Your task to perform on an android device: Open calendar and show me the third week of next month Image 0: 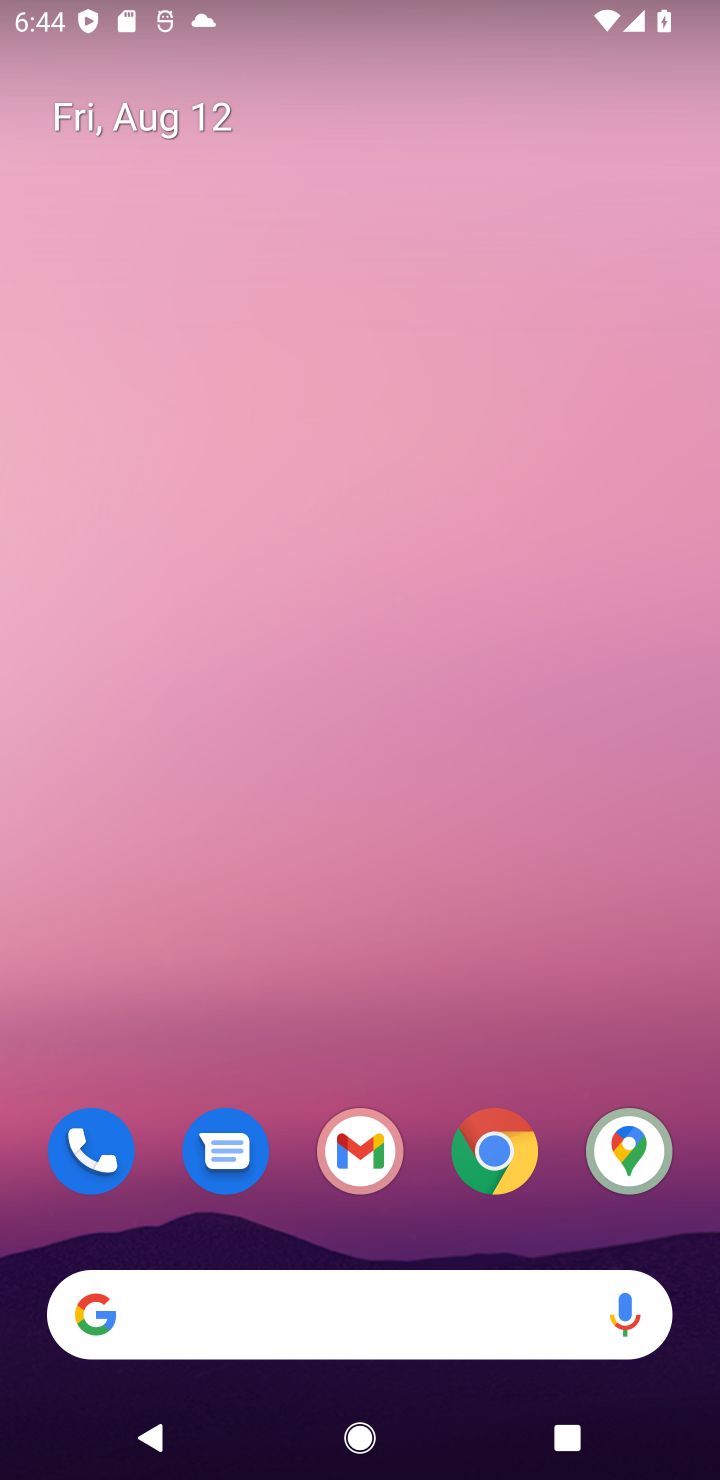
Step 0: drag from (483, 784) to (470, 0)
Your task to perform on an android device: Open calendar and show me the third week of next month Image 1: 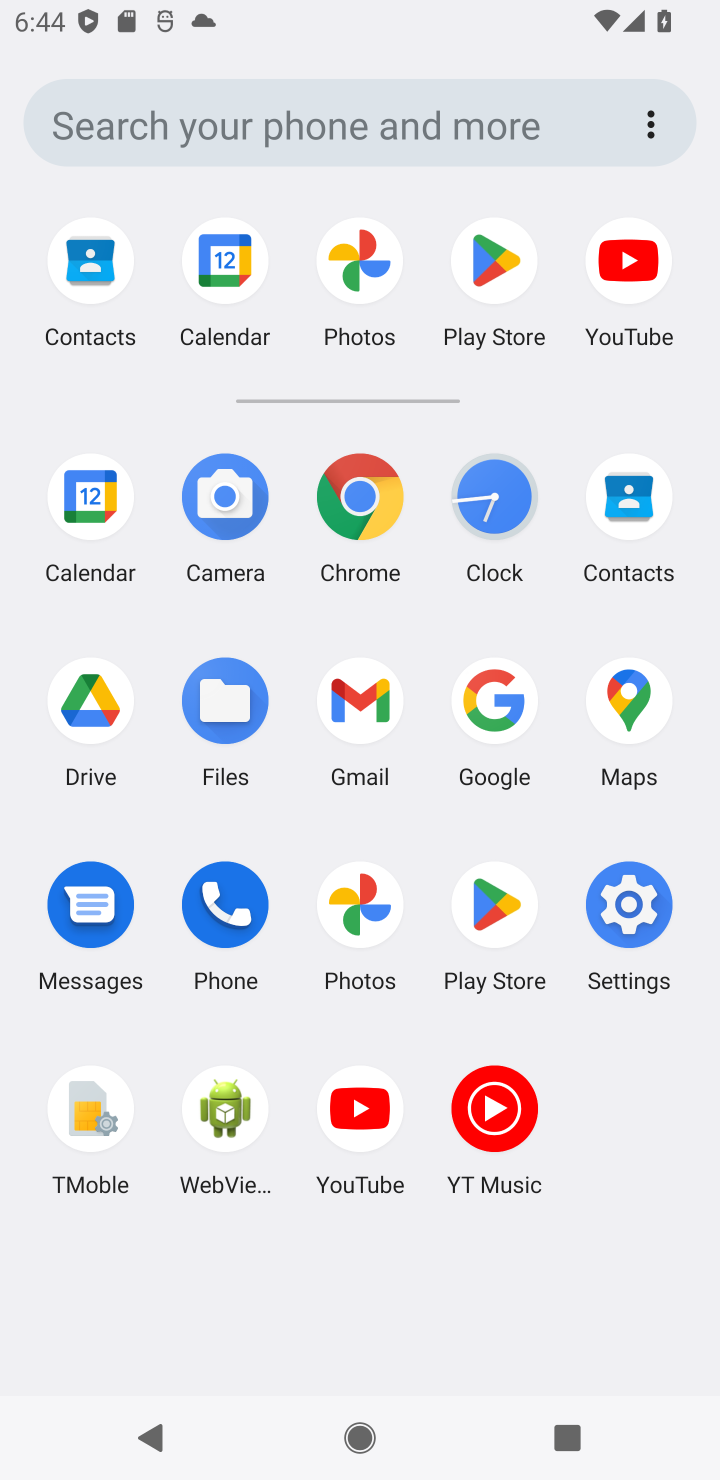
Step 1: click (101, 498)
Your task to perform on an android device: Open calendar and show me the third week of next month Image 2: 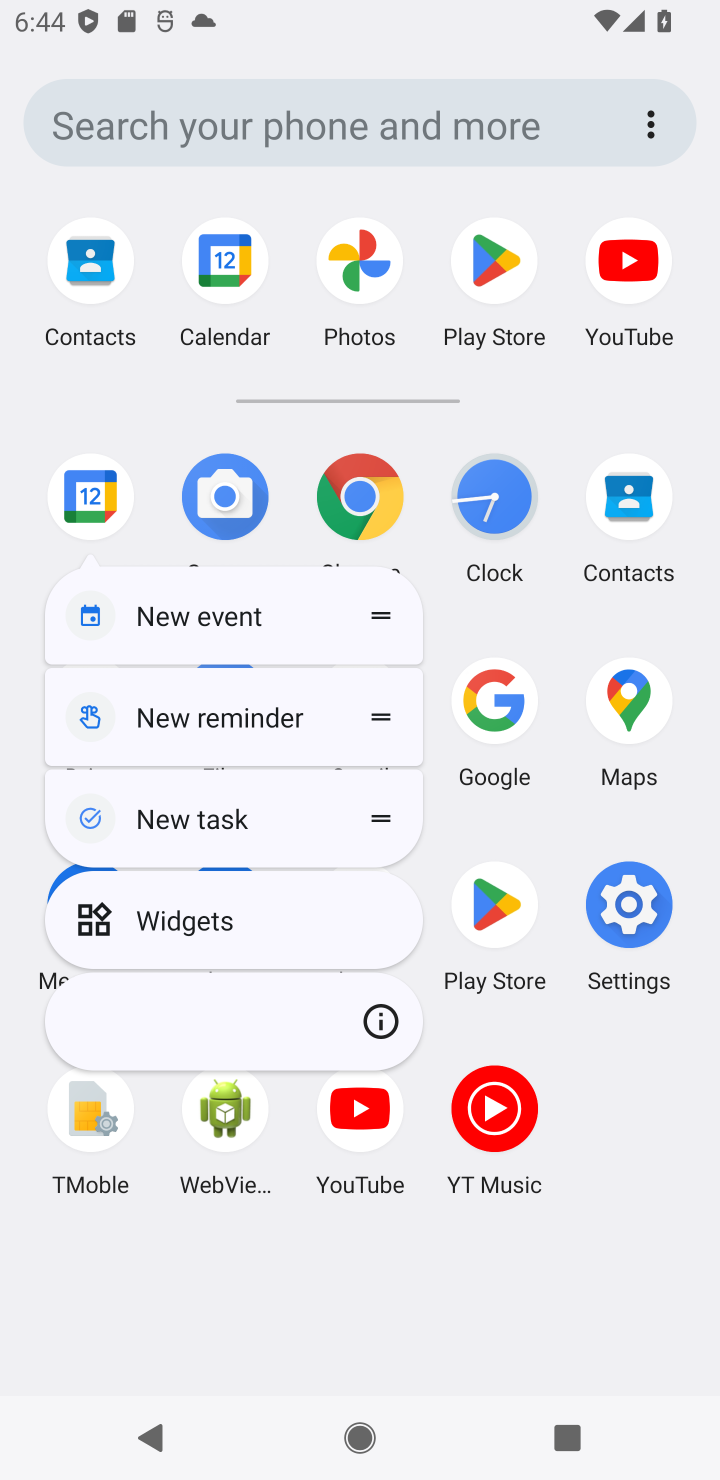
Step 2: click (86, 498)
Your task to perform on an android device: Open calendar and show me the third week of next month Image 3: 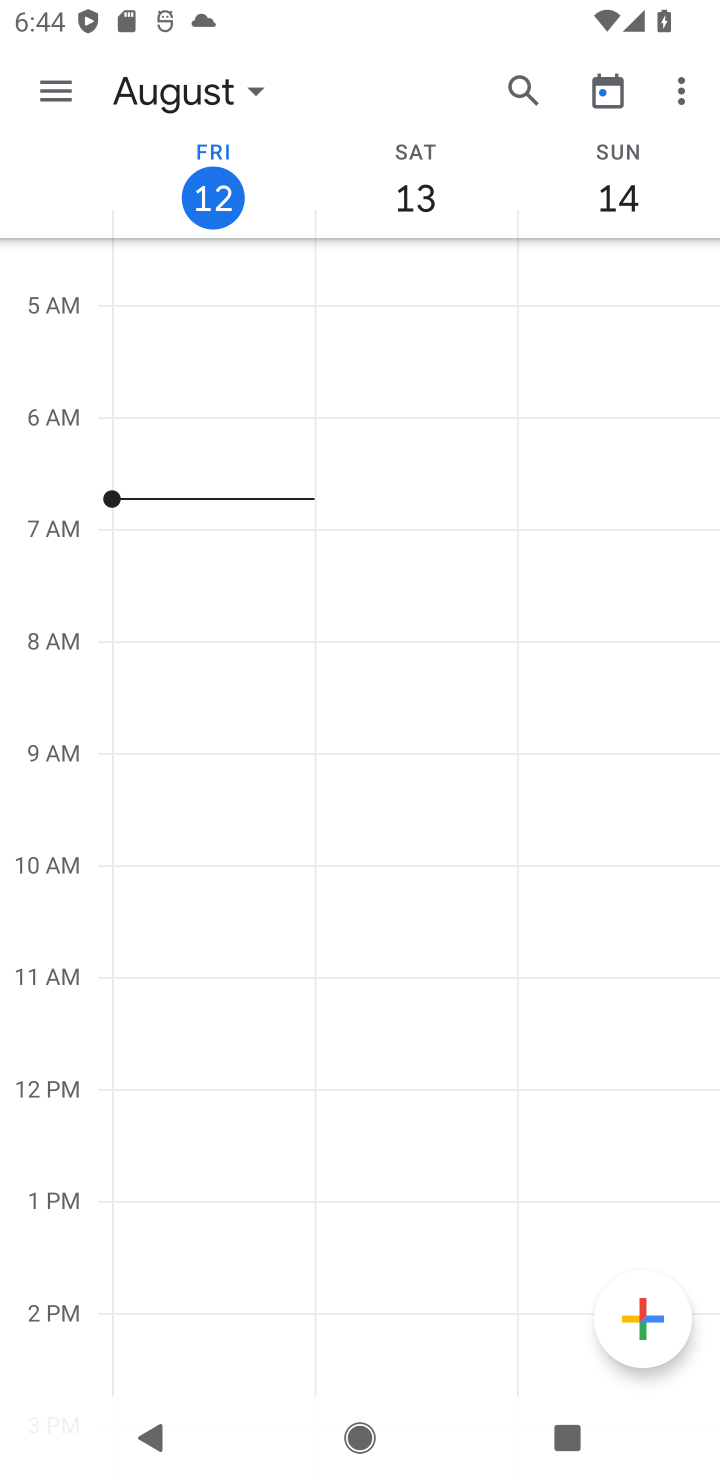
Step 3: click (134, 82)
Your task to perform on an android device: Open calendar and show me the third week of next month Image 4: 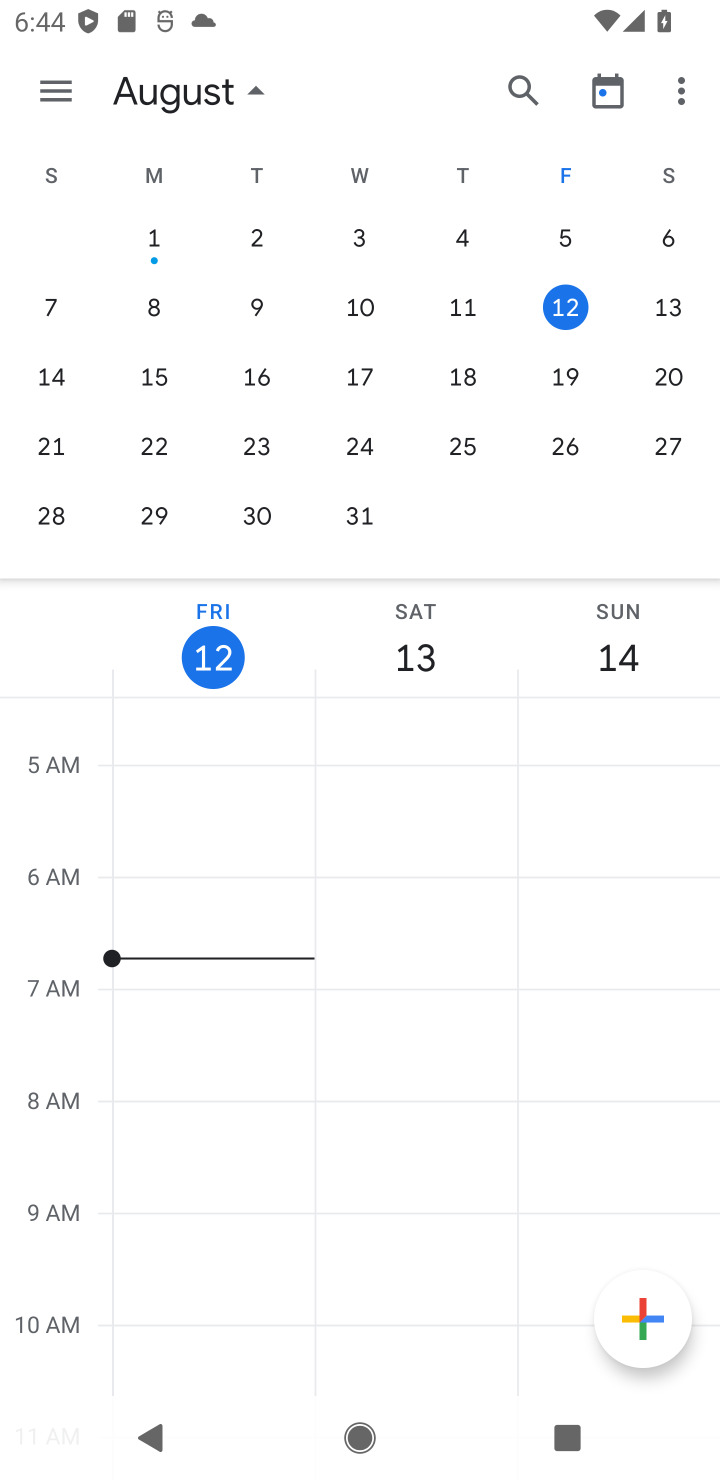
Step 4: drag from (683, 455) to (100, 382)
Your task to perform on an android device: Open calendar and show me the third week of next month Image 5: 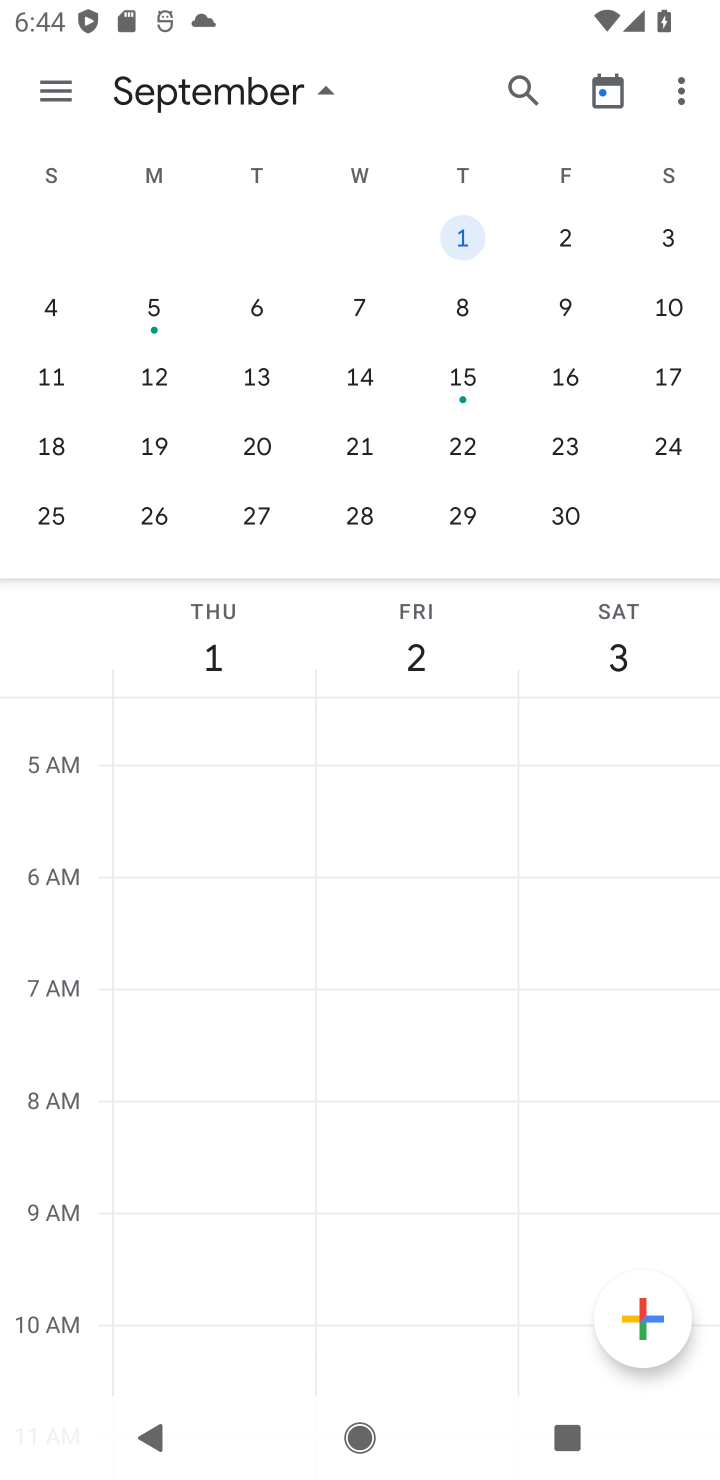
Step 5: click (168, 440)
Your task to perform on an android device: Open calendar and show me the third week of next month Image 6: 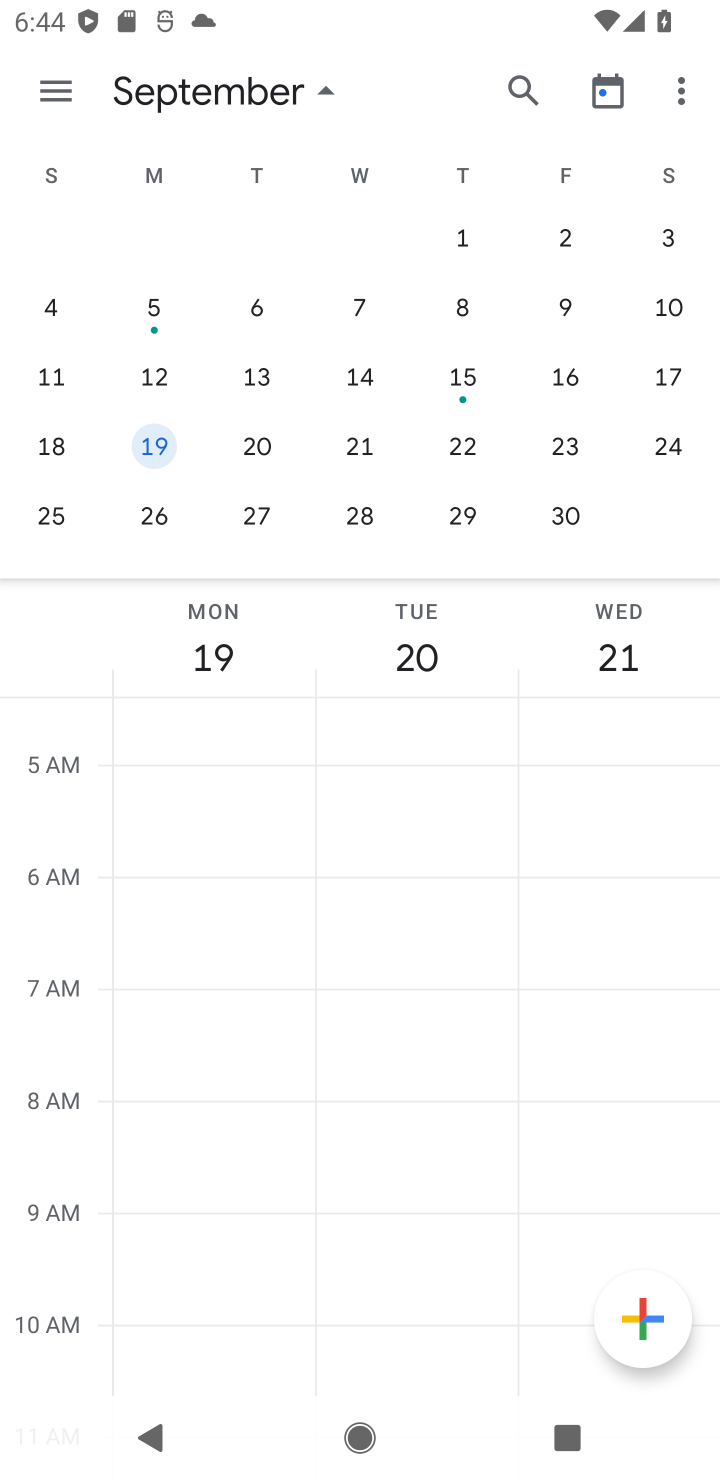
Step 6: click (46, 86)
Your task to perform on an android device: Open calendar and show me the third week of next month Image 7: 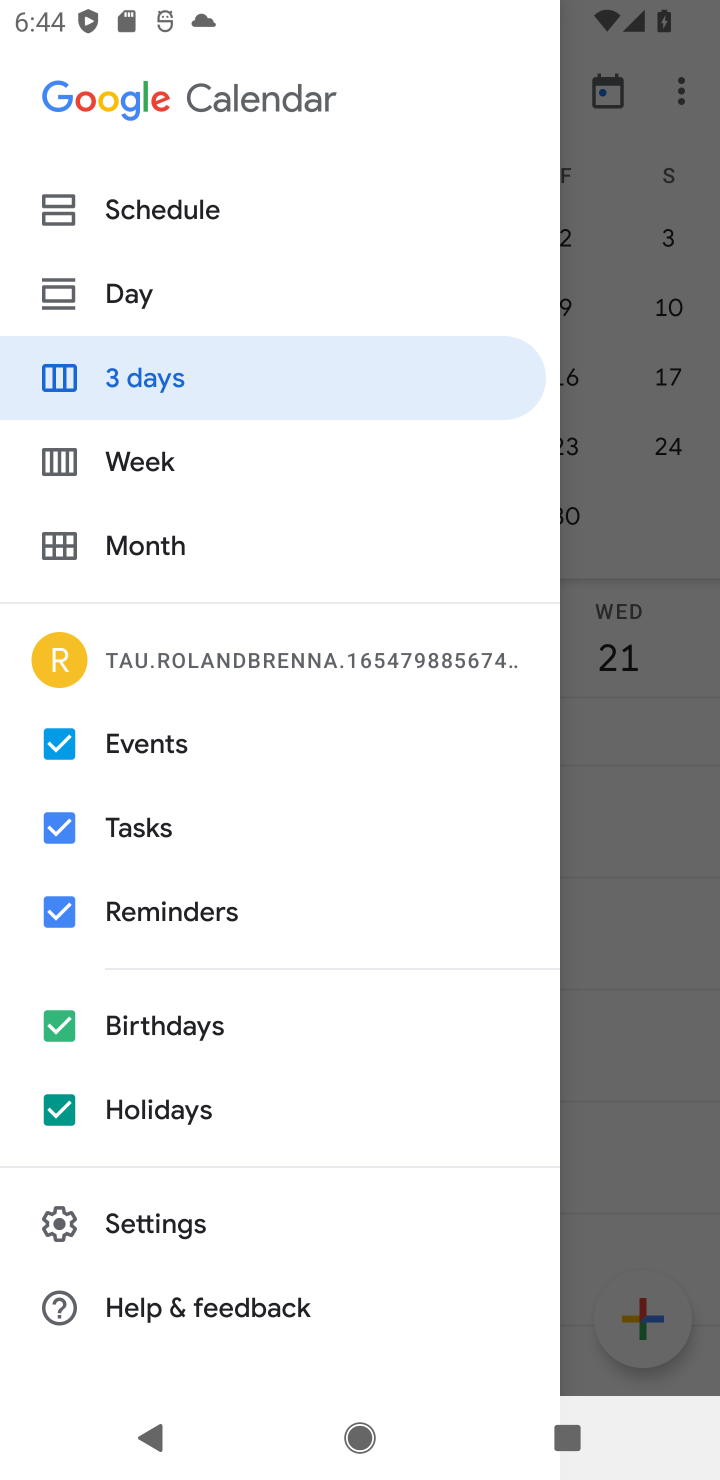
Step 7: click (176, 482)
Your task to perform on an android device: Open calendar and show me the third week of next month Image 8: 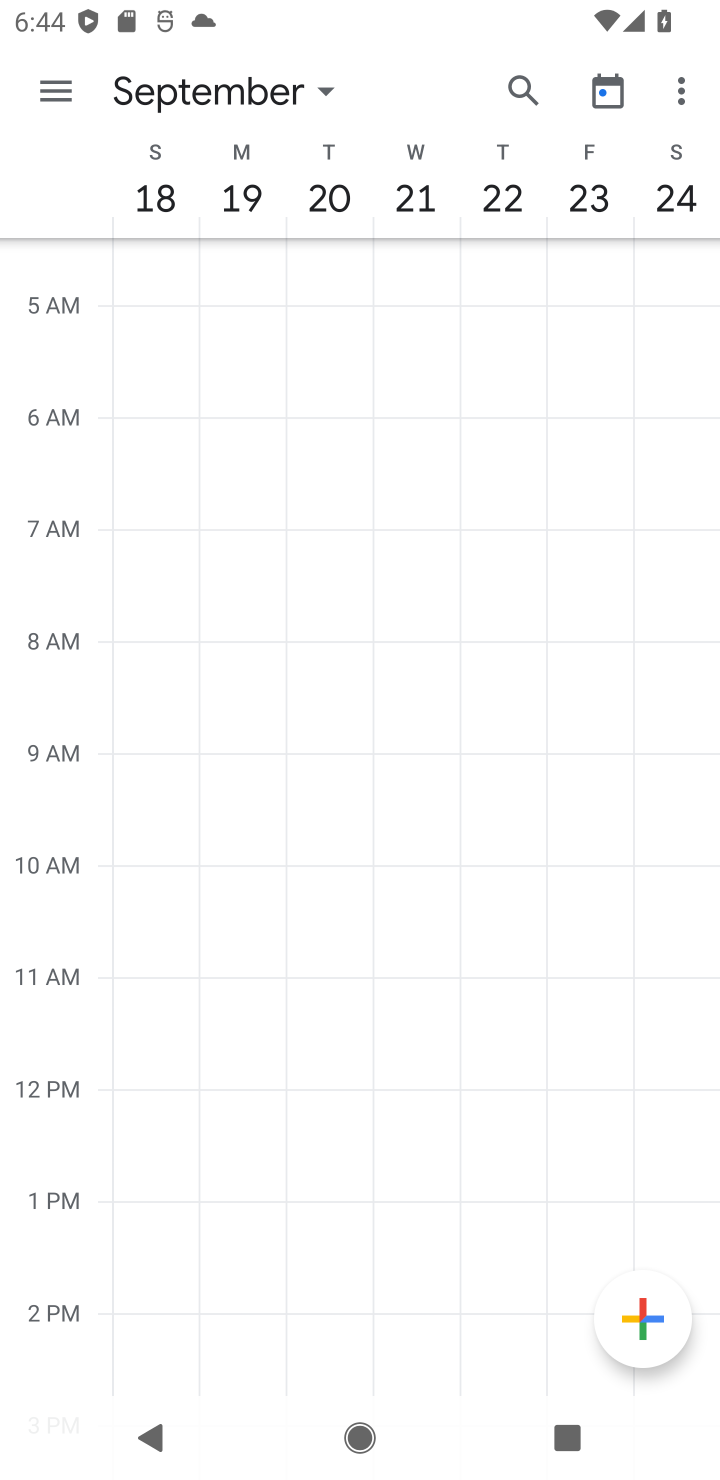
Step 8: task complete